Your task to perform on an android device: check google app version Image 0: 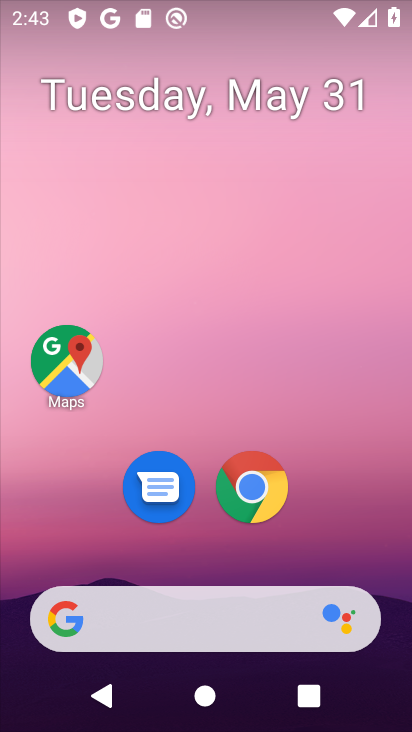
Step 0: drag from (89, 566) to (202, 157)
Your task to perform on an android device: check google app version Image 1: 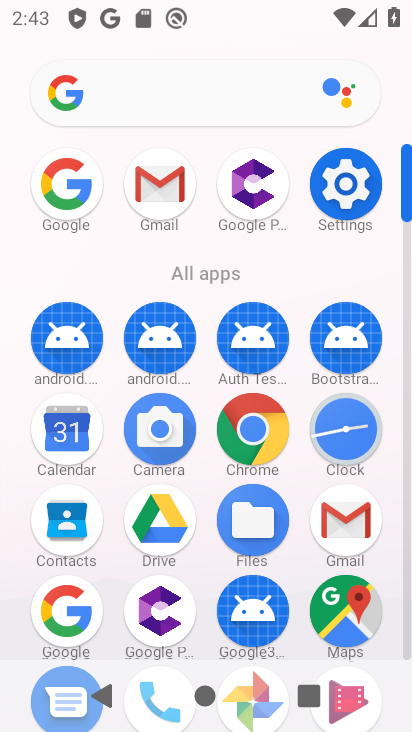
Step 1: drag from (169, 596) to (232, 283)
Your task to perform on an android device: check google app version Image 2: 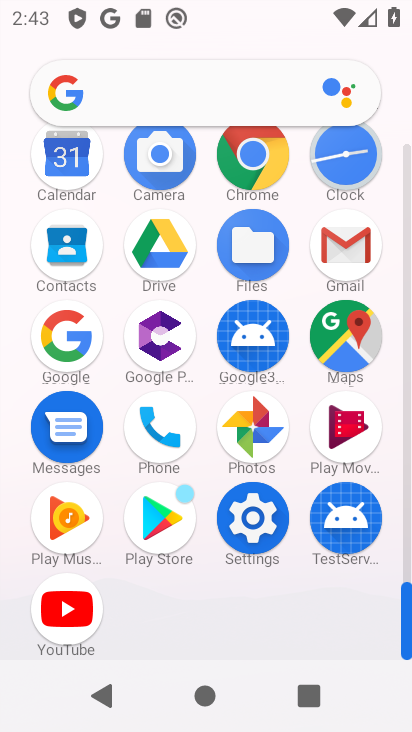
Step 2: click (265, 534)
Your task to perform on an android device: check google app version Image 3: 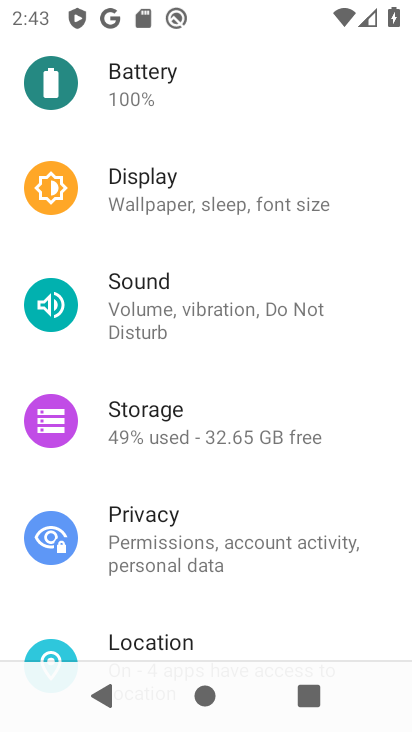
Step 3: drag from (288, 190) to (208, 591)
Your task to perform on an android device: check google app version Image 4: 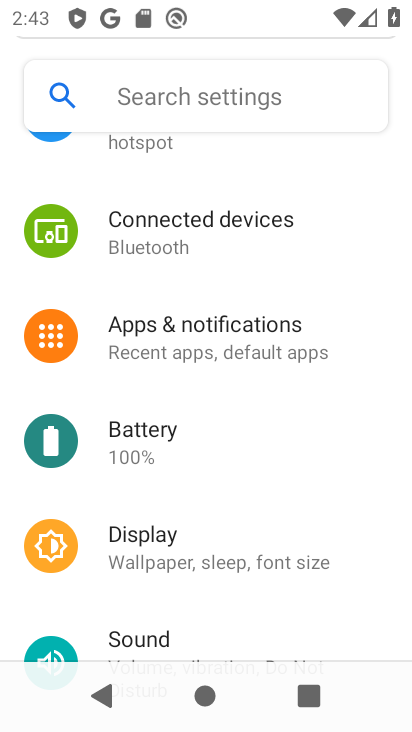
Step 4: click (234, 360)
Your task to perform on an android device: check google app version Image 5: 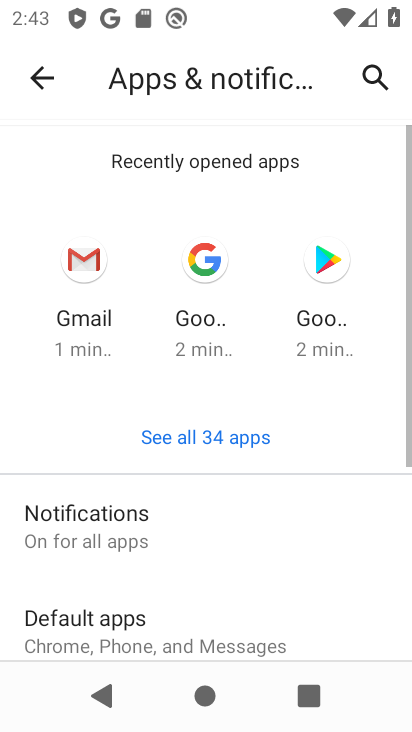
Step 5: drag from (210, 571) to (287, 111)
Your task to perform on an android device: check google app version Image 6: 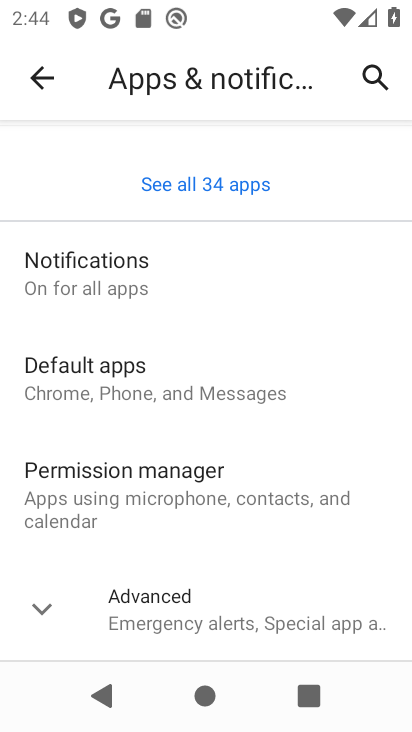
Step 6: click (210, 177)
Your task to perform on an android device: check google app version Image 7: 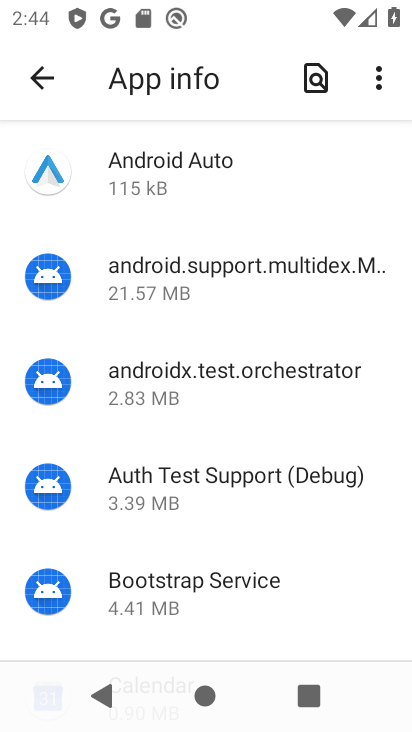
Step 7: drag from (218, 554) to (319, 137)
Your task to perform on an android device: check google app version Image 8: 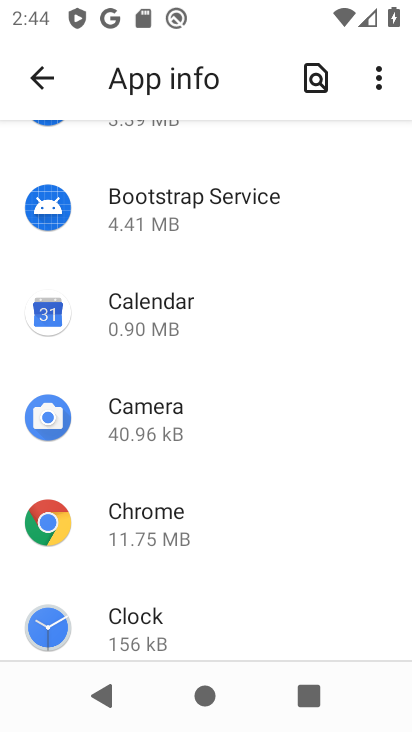
Step 8: drag from (217, 564) to (292, 165)
Your task to perform on an android device: check google app version Image 9: 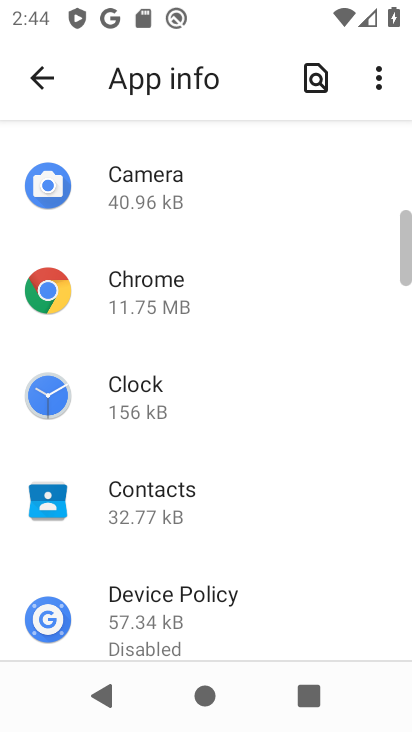
Step 9: drag from (226, 572) to (317, 138)
Your task to perform on an android device: check google app version Image 10: 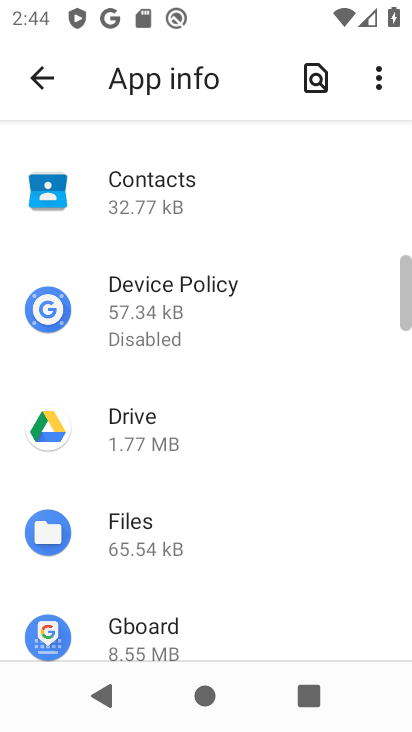
Step 10: drag from (151, 545) to (262, 134)
Your task to perform on an android device: check google app version Image 11: 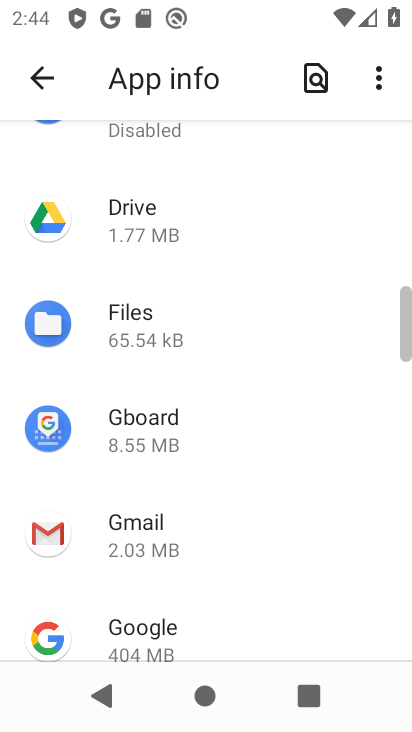
Step 11: drag from (169, 542) to (246, 168)
Your task to perform on an android device: check google app version Image 12: 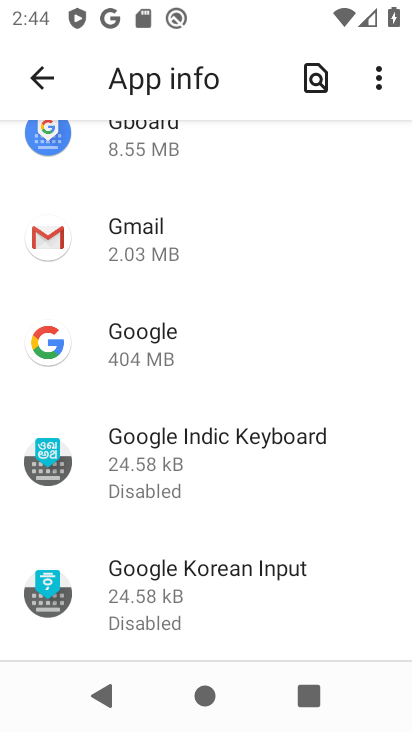
Step 12: click (137, 365)
Your task to perform on an android device: check google app version Image 13: 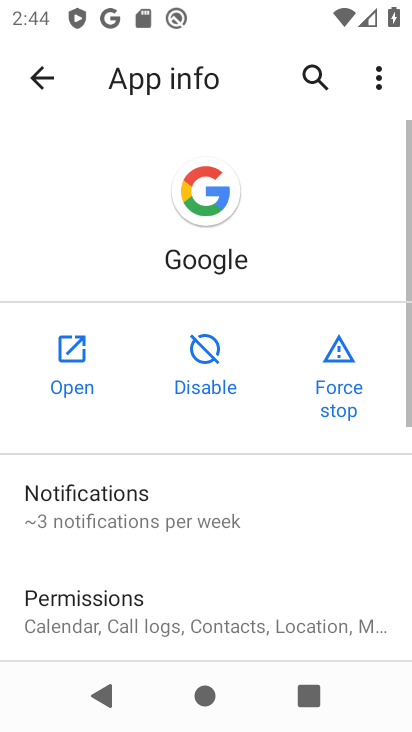
Step 13: drag from (200, 590) to (328, 170)
Your task to perform on an android device: check google app version Image 14: 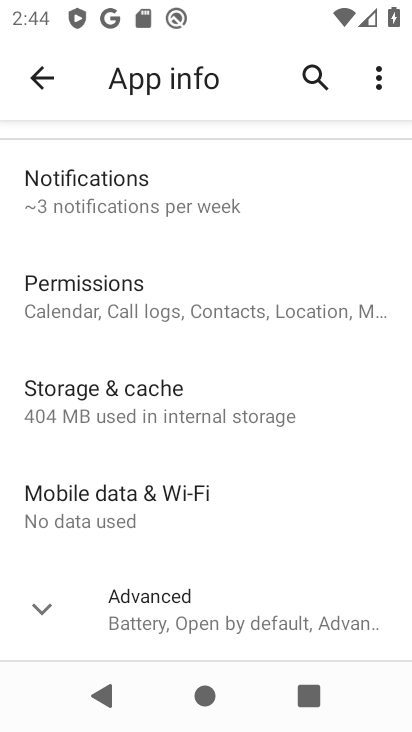
Step 14: click (261, 627)
Your task to perform on an android device: check google app version Image 15: 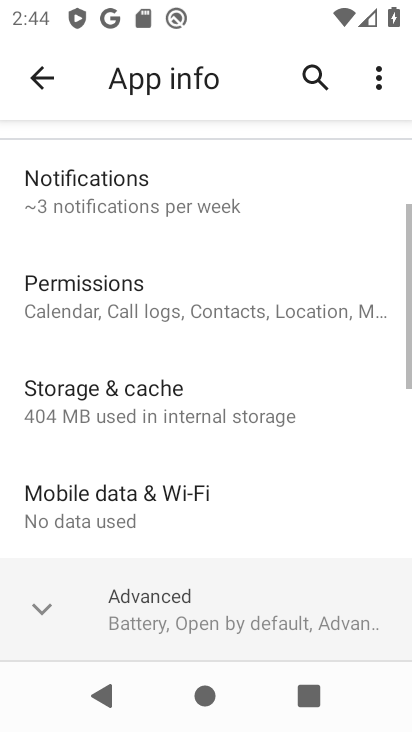
Step 15: task complete